Your task to perform on an android device: toggle pop-ups in chrome Image 0: 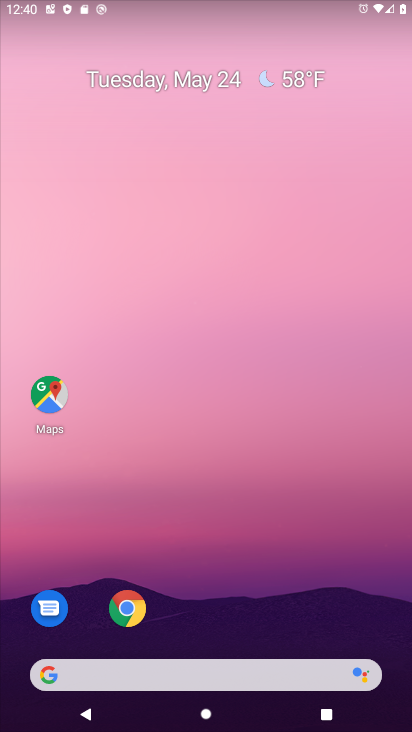
Step 0: drag from (323, 687) to (286, 115)
Your task to perform on an android device: toggle pop-ups in chrome Image 1: 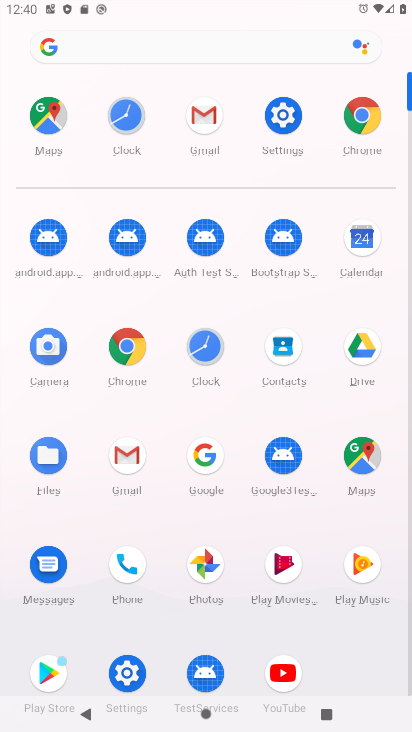
Step 1: click (139, 337)
Your task to perform on an android device: toggle pop-ups in chrome Image 2: 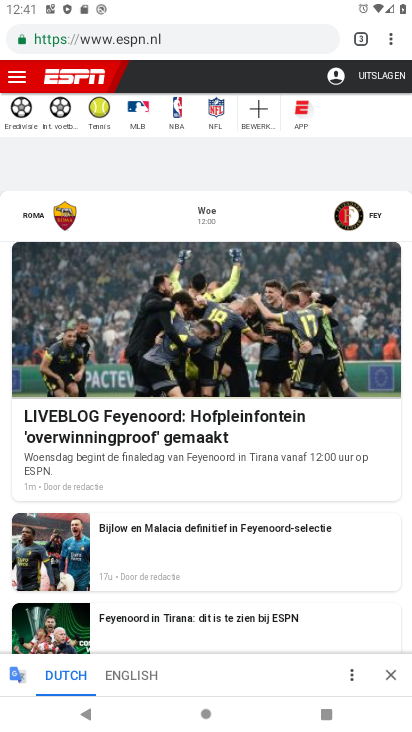
Step 2: click (385, 46)
Your task to perform on an android device: toggle pop-ups in chrome Image 3: 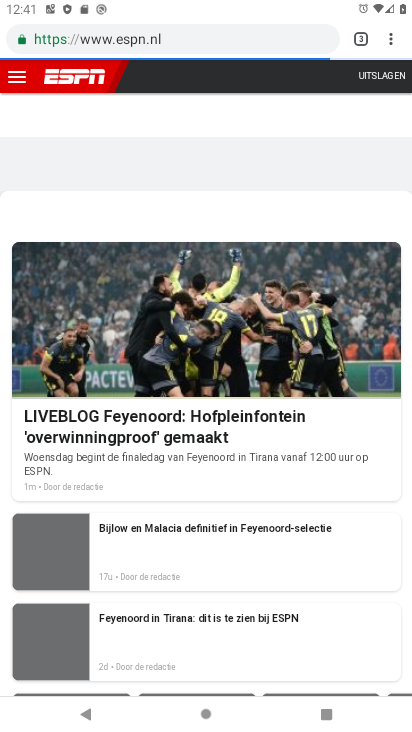
Step 3: click (384, 44)
Your task to perform on an android device: toggle pop-ups in chrome Image 4: 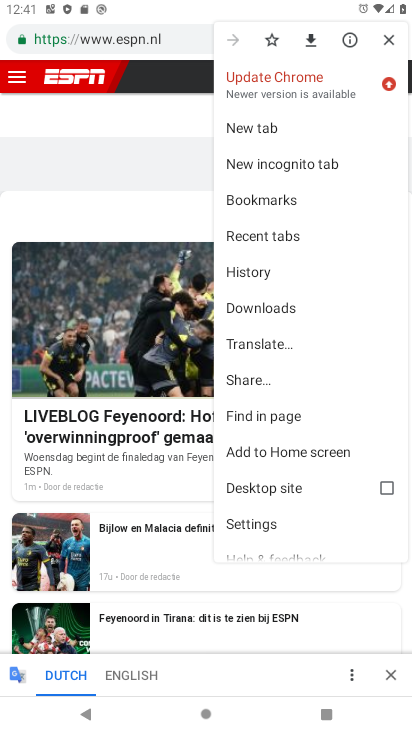
Step 4: click (266, 521)
Your task to perform on an android device: toggle pop-ups in chrome Image 5: 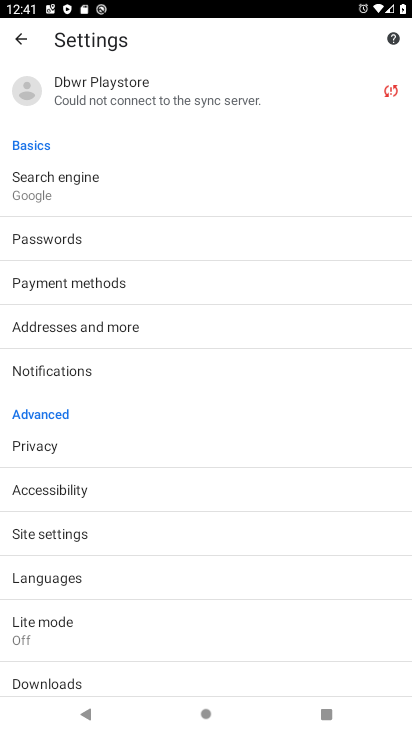
Step 5: drag from (114, 616) to (188, 424)
Your task to perform on an android device: toggle pop-ups in chrome Image 6: 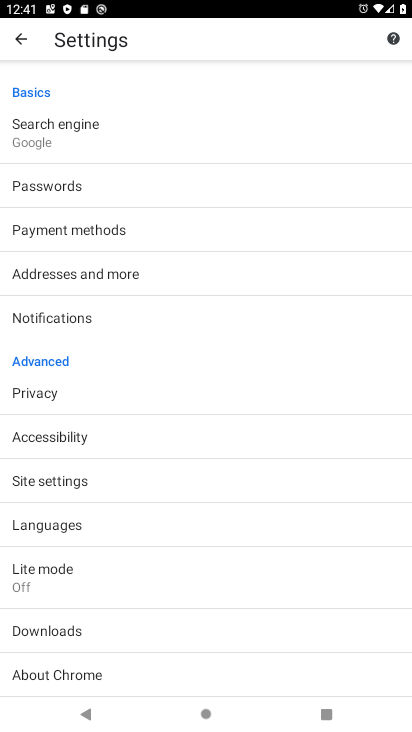
Step 6: click (90, 476)
Your task to perform on an android device: toggle pop-ups in chrome Image 7: 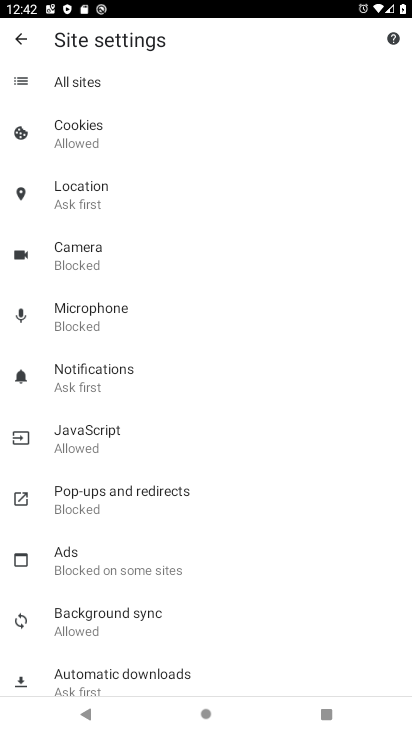
Step 7: click (128, 491)
Your task to perform on an android device: toggle pop-ups in chrome Image 8: 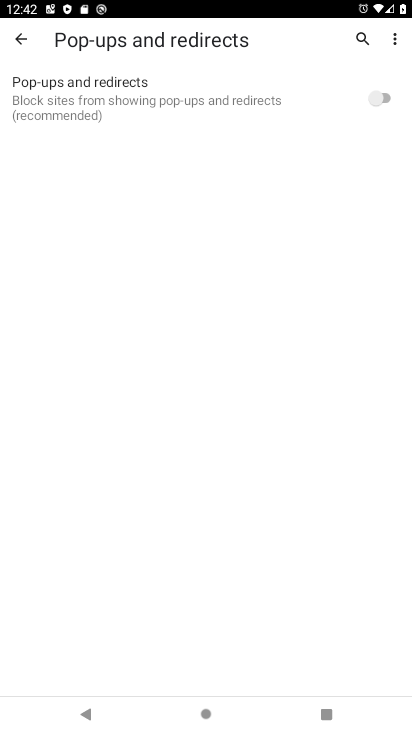
Step 8: task complete